Your task to perform on an android device: Go to Google maps Image 0: 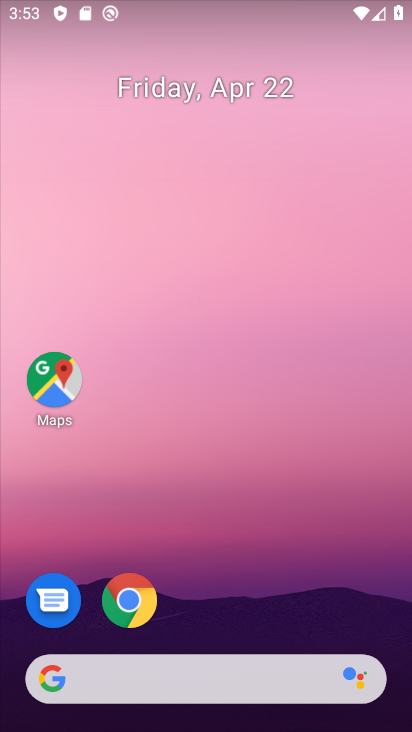
Step 0: click (51, 383)
Your task to perform on an android device: Go to Google maps Image 1: 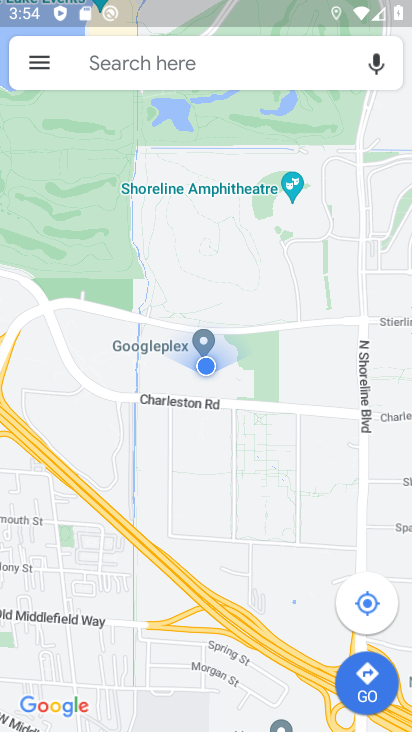
Step 1: task complete